Your task to perform on an android device: View the shopping cart on target. Search for alienware area 51 on target, select the first entry, and add it to the cart. Image 0: 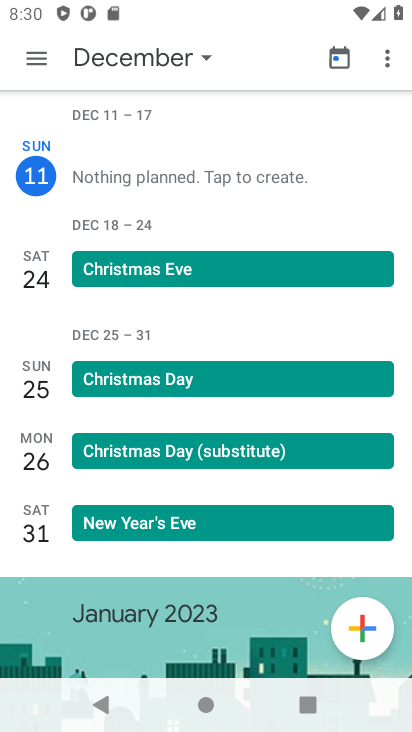
Step 0: press home button
Your task to perform on an android device: View the shopping cart on target. Search for alienware area 51 on target, select the first entry, and add it to the cart. Image 1: 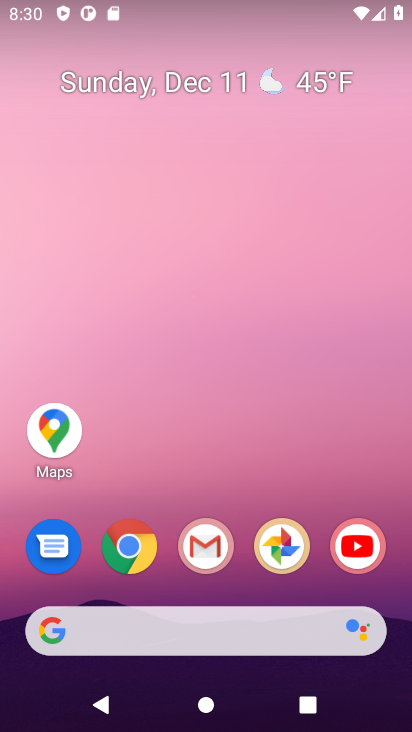
Step 1: click (130, 549)
Your task to perform on an android device: View the shopping cart on target. Search for alienware area 51 on target, select the first entry, and add it to the cart. Image 2: 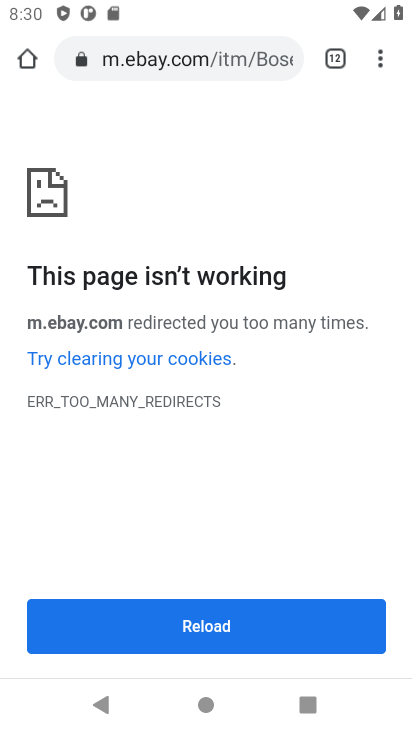
Step 2: click (163, 63)
Your task to perform on an android device: View the shopping cart on target. Search for alienware area 51 on target, select the first entry, and add it to the cart. Image 3: 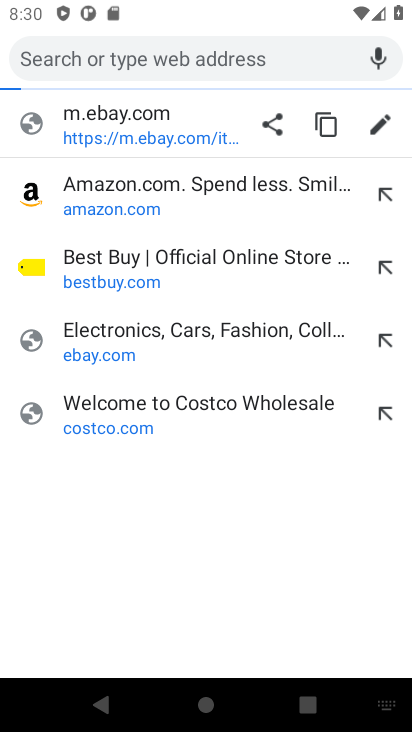
Step 3: type "target.com"
Your task to perform on an android device: View the shopping cart on target. Search for alienware area 51 on target, select the first entry, and add it to the cart. Image 4: 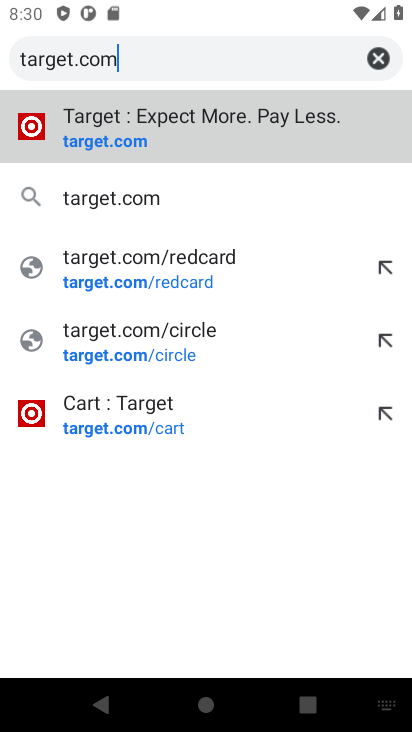
Step 4: click (81, 144)
Your task to perform on an android device: View the shopping cart on target. Search for alienware area 51 on target, select the first entry, and add it to the cart. Image 5: 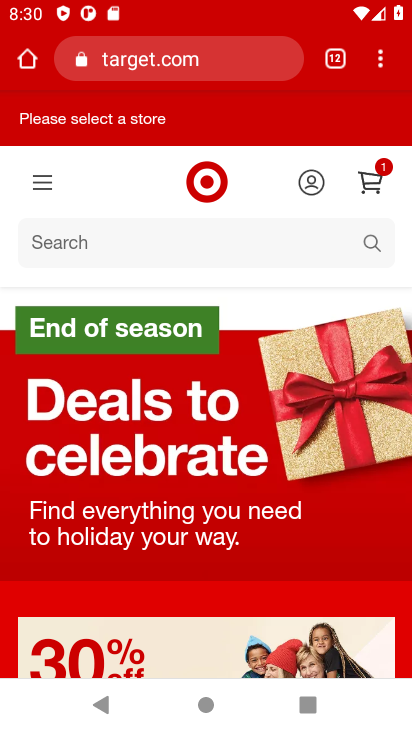
Step 5: click (370, 189)
Your task to perform on an android device: View the shopping cart on target. Search for alienware area 51 on target, select the first entry, and add it to the cart. Image 6: 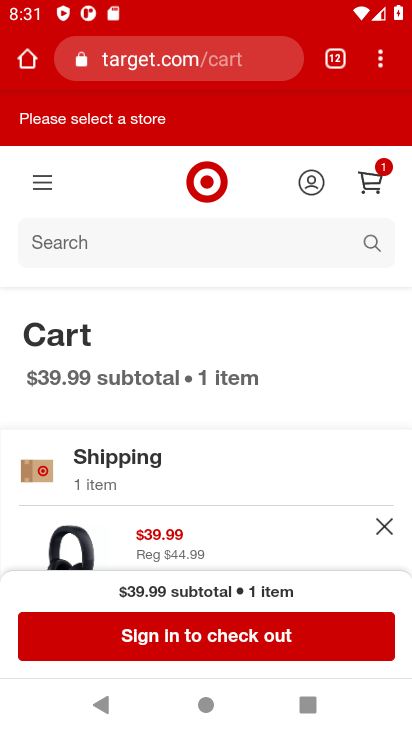
Step 6: drag from (270, 405) to (268, 265)
Your task to perform on an android device: View the shopping cart on target. Search for alienware area 51 on target, select the first entry, and add it to the cart. Image 7: 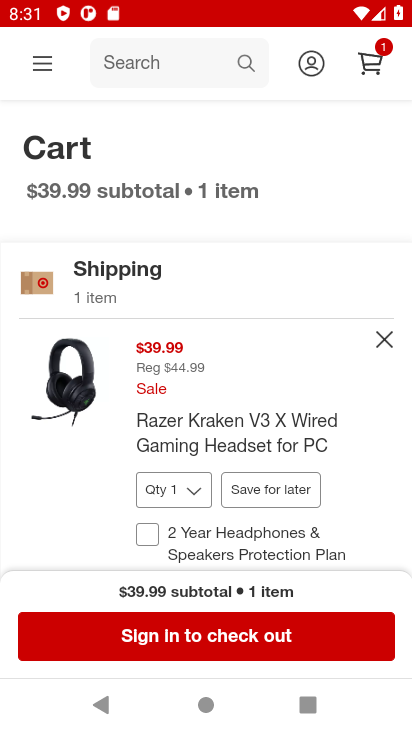
Step 7: drag from (248, 439) to (249, 305)
Your task to perform on an android device: View the shopping cart on target. Search for alienware area 51 on target, select the first entry, and add it to the cart. Image 8: 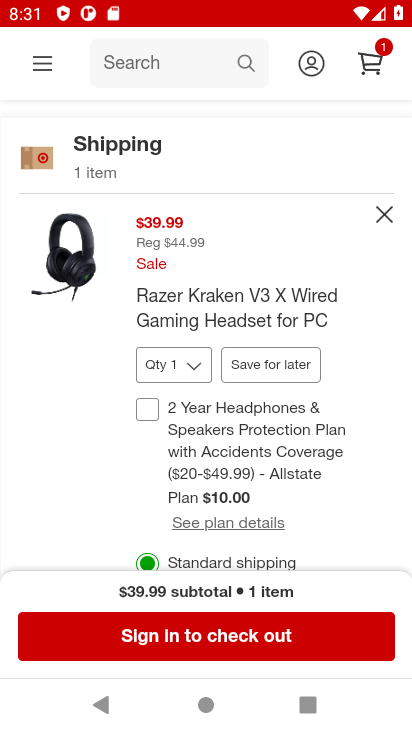
Step 8: click (247, 58)
Your task to perform on an android device: View the shopping cart on target. Search for alienware area 51 on target, select the first entry, and add it to the cart. Image 9: 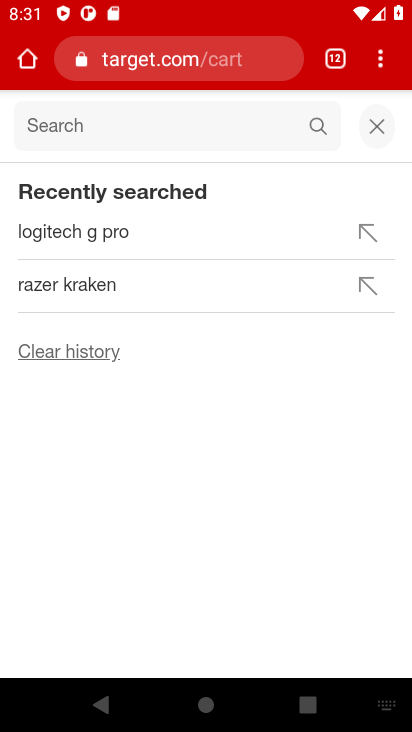
Step 9: type "alienware area 51"
Your task to perform on an android device: View the shopping cart on target. Search for alienware area 51 on target, select the first entry, and add it to the cart. Image 10: 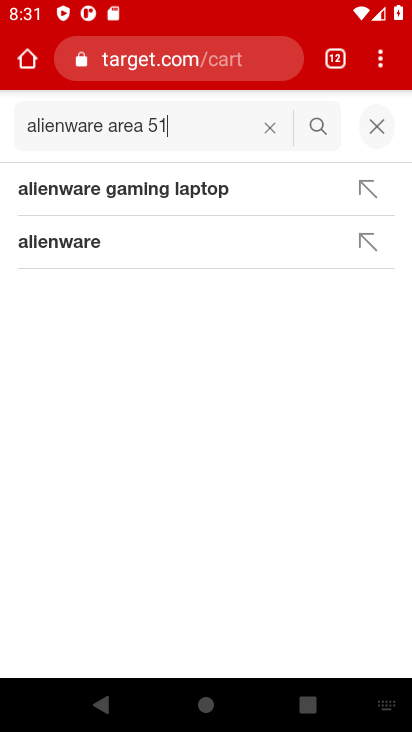
Step 10: click (320, 124)
Your task to perform on an android device: View the shopping cart on target. Search for alienware area 51 on target, select the first entry, and add it to the cart. Image 11: 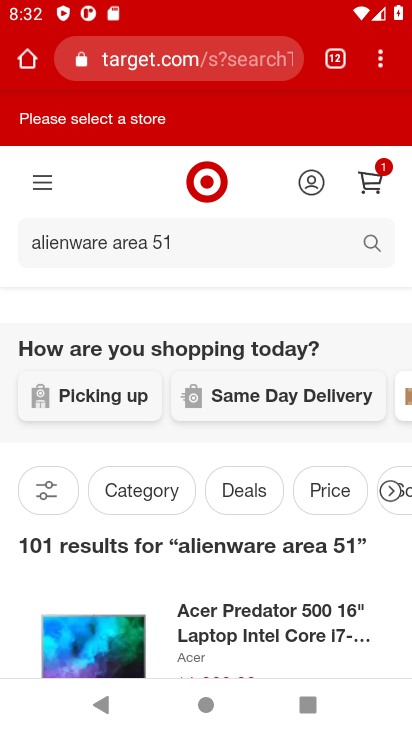
Step 11: click (374, 187)
Your task to perform on an android device: View the shopping cart on target. Search for alienware area 51 on target, select the first entry, and add it to the cart. Image 12: 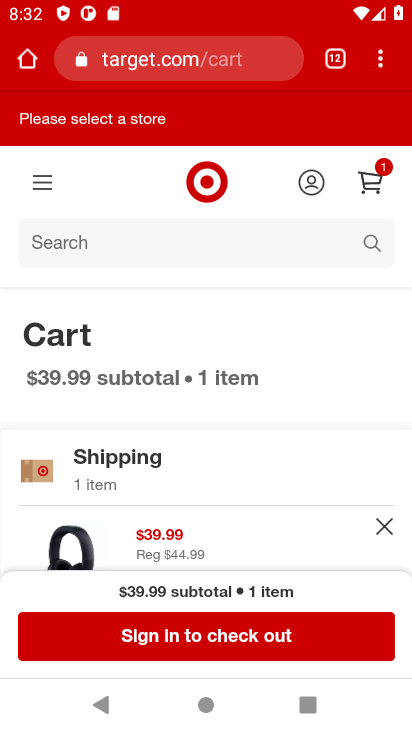
Step 12: drag from (181, 533) to (208, 259)
Your task to perform on an android device: View the shopping cart on target. Search for alienware area 51 on target, select the first entry, and add it to the cart. Image 13: 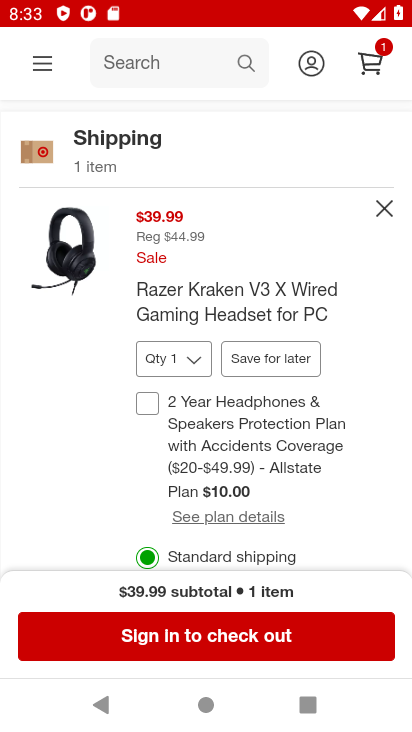
Step 13: click (246, 62)
Your task to perform on an android device: View the shopping cart on target. Search for alienware area 51 on target, select the first entry, and add it to the cart. Image 14: 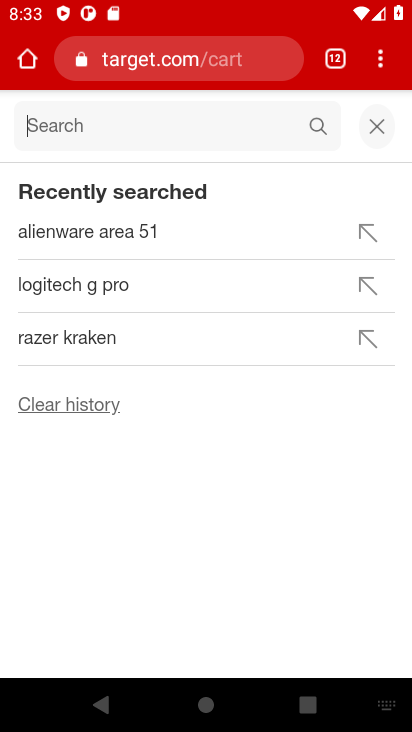
Step 14: type "alienware area 51"
Your task to perform on an android device: View the shopping cart on target. Search for alienware area 51 on target, select the first entry, and add it to the cart. Image 15: 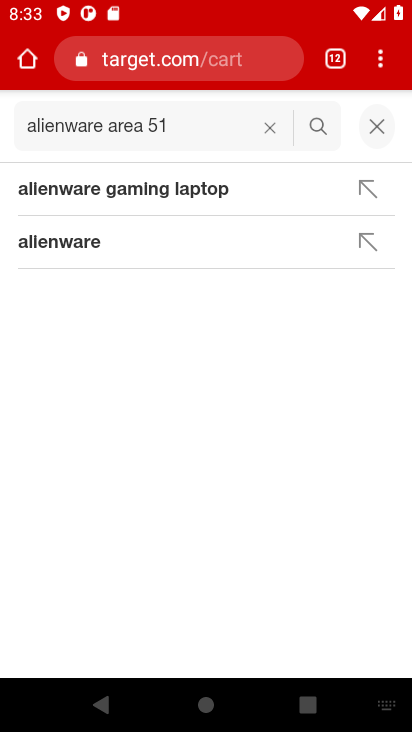
Step 15: click (311, 125)
Your task to perform on an android device: View the shopping cart on target. Search for alienware area 51 on target, select the first entry, and add it to the cart. Image 16: 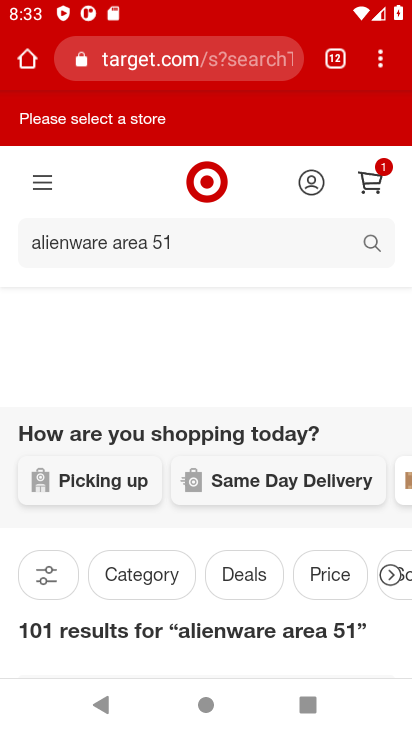
Step 16: task complete